Your task to perform on an android device: remove spam from my inbox in the gmail app Image 0: 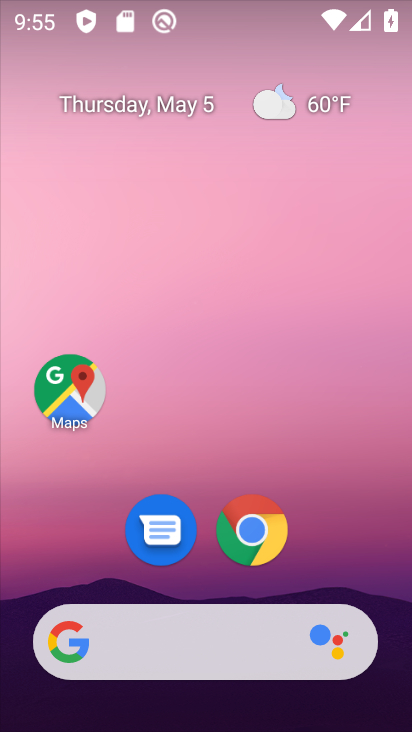
Step 0: drag from (360, 586) to (203, 101)
Your task to perform on an android device: remove spam from my inbox in the gmail app Image 1: 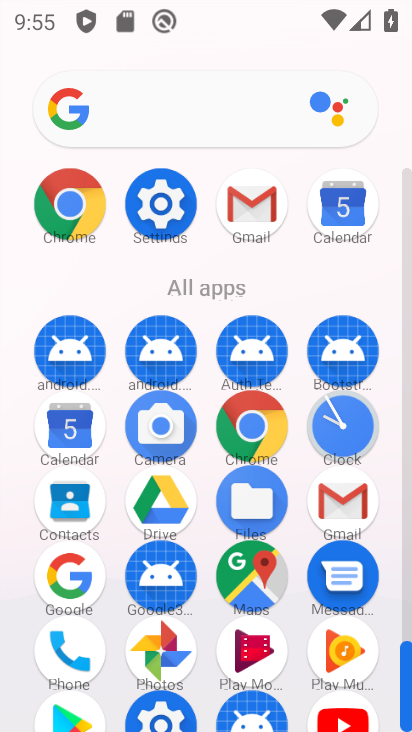
Step 1: click (338, 497)
Your task to perform on an android device: remove spam from my inbox in the gmail app Image 2: 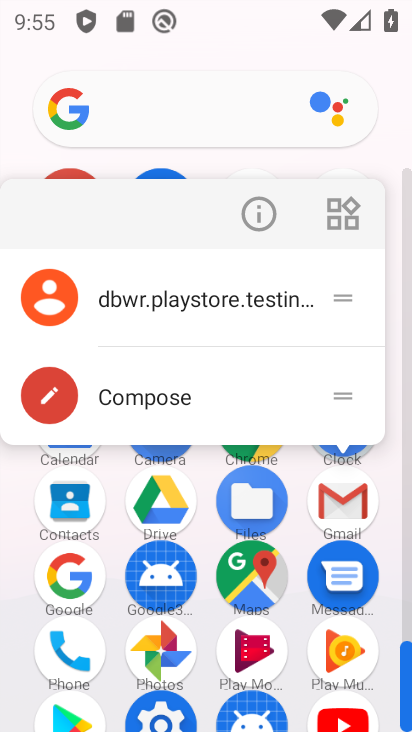
Step 2: click (342, 492)
Your task to perform on an android device: remove spam from my inbox in the gmail app Image 3: 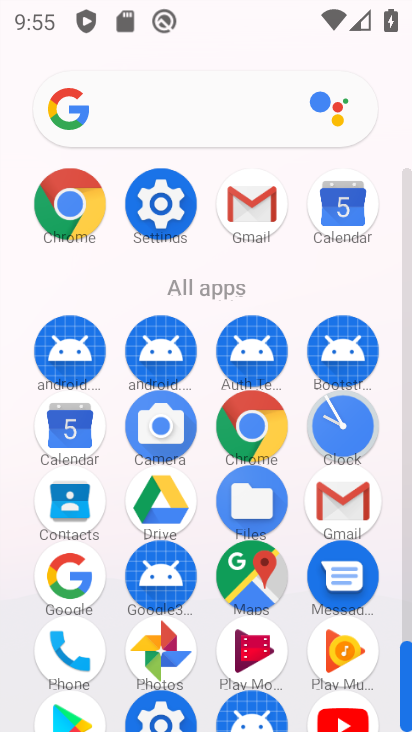
Step 3: click (342, 492)
Your task to perform on an android device: remove spam from my inbox in the gmail app Image 4: 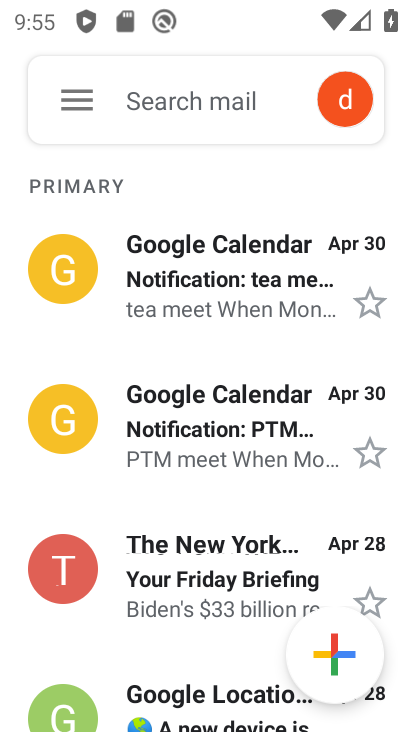
Step 4: click (90, 103)
Your task to perform on an android device: remove spam from my inbox in the gmail app Image 5: 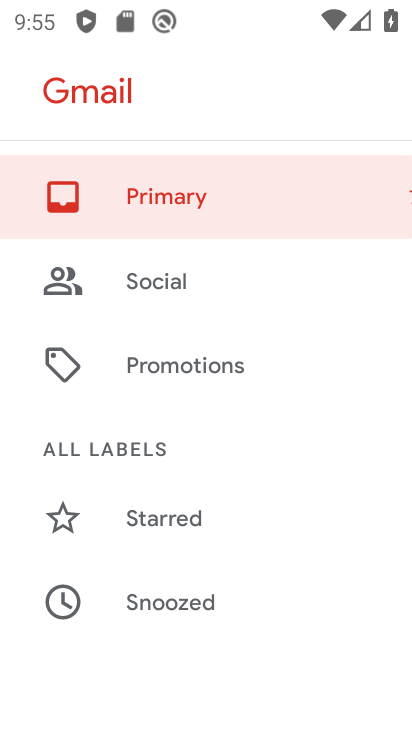
Step 5: drag from (207, 548) to (133, 219)
Your task to perform on an android device: remove spam from my inbox in the gmail app Image 6: 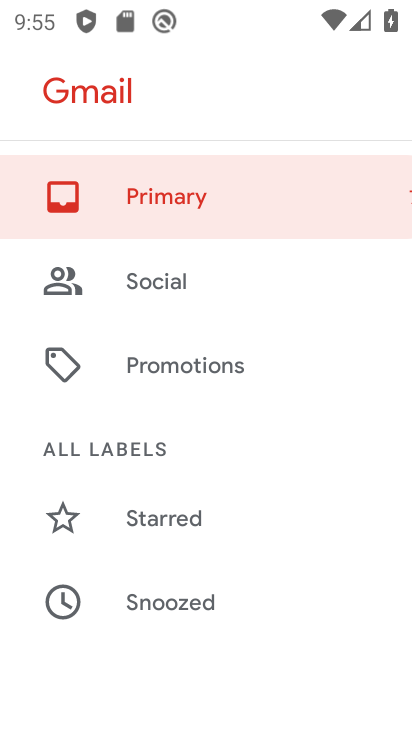
Step 6: drag from (193, 253) to (223, 600)
Your task to perform on an android device: remove spam from my inbox in the gmail app Image 7: 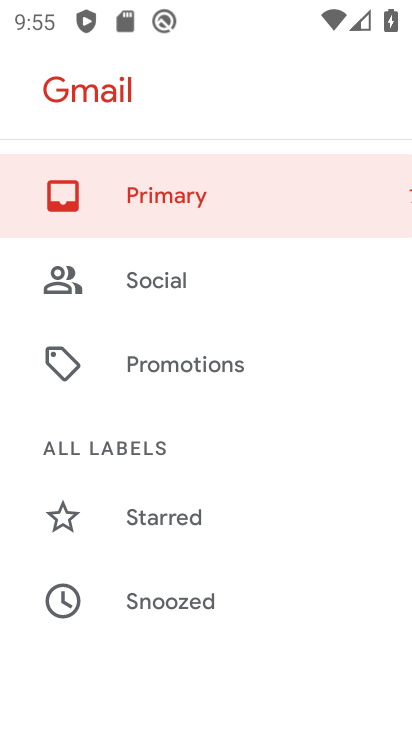
Step 7: drag from (181, 526) to (143, 61)
Your task to perform on an android device: remove spam from my inbox in the gmail app Image 8: 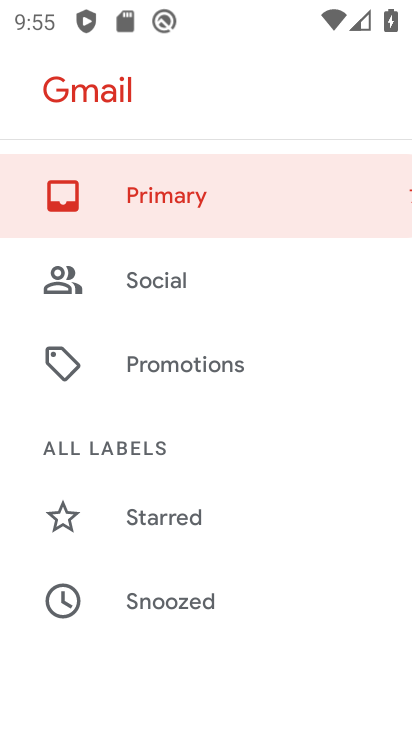
Step 8: drag from (161, 259) to (199, 586)
Your task to perform on an android device: remove spam from my inbox in the gmail app Image 9: 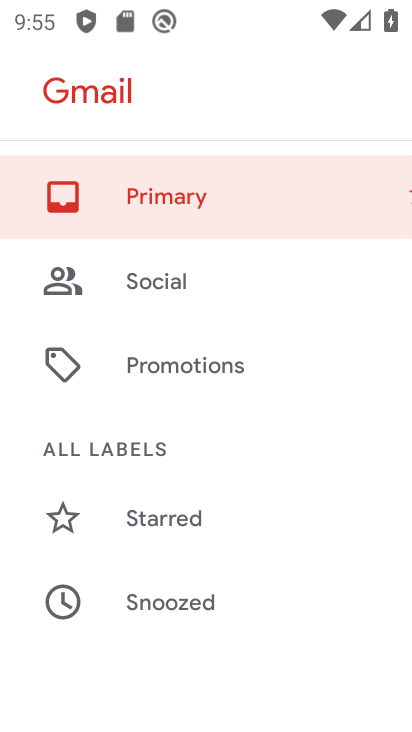
Step 9: drag from (198, 611) to (115, 209)
Your task to perform on an android device: remove spam from my inbox in the gmail app Image 10: 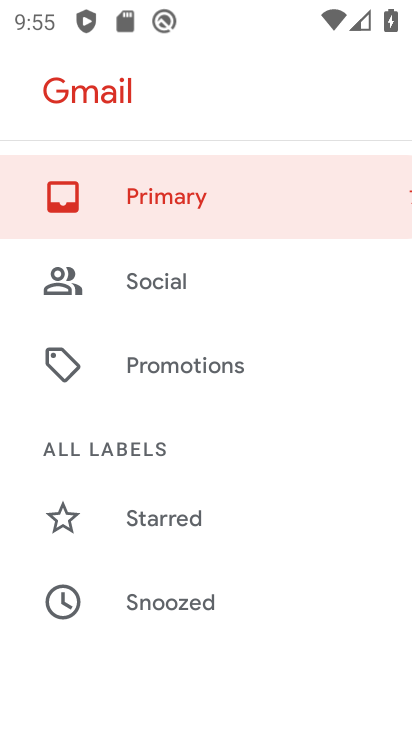
Step 10: drag from (190, 470) to (111, 147)
Your task to perform on an android device: remove spam from my inbox in the gmail app Image 11: 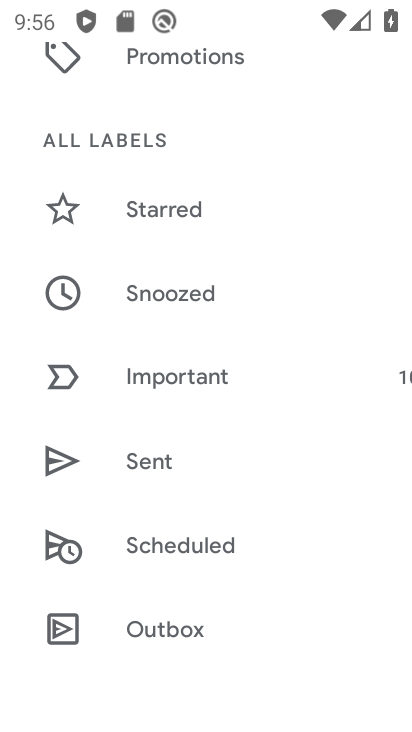
Step 11: drag from (250, 542) to (197, 2)
Your task to perform on an android device: remove spam from my inbox in the gmail app Image 12: 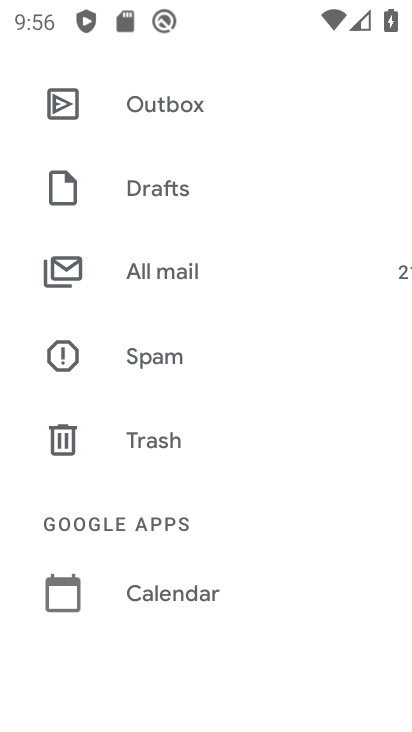
Step 12: drag from (267, 541) to (285, 95)
Your task to perform on an android device: remove spam from my inbox in the gmail app Image 13: 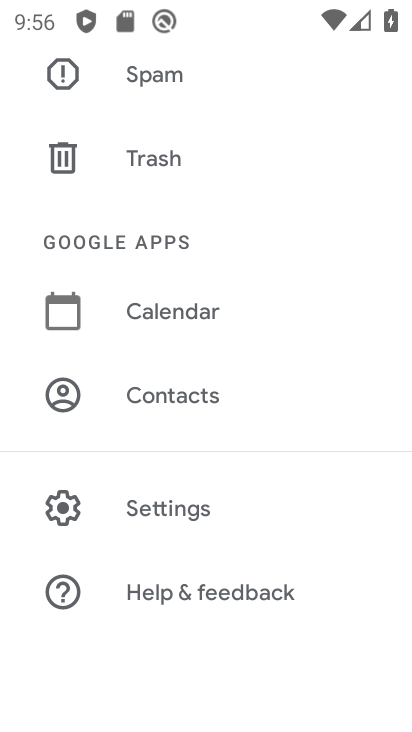
Step 13: click (162, 70)
Your task to perform on an android device: remove spam from my inbox in the gmail app Image 14: 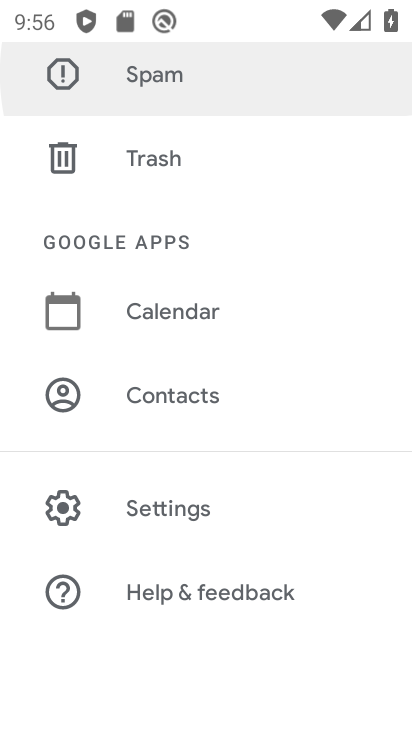
Step 14: click (163, 72)
Your task to perform on an android device: remove spam from my inbox in the gmail app Image 15: 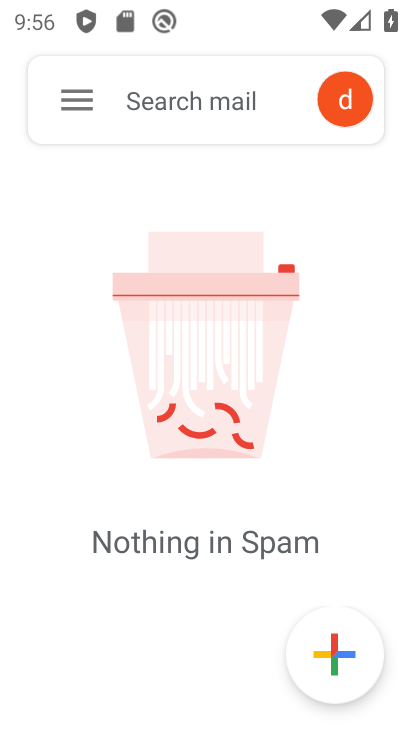
Step 15: task complete